Your task to perform on an android device: check the backup settings in the google photos Image 0: 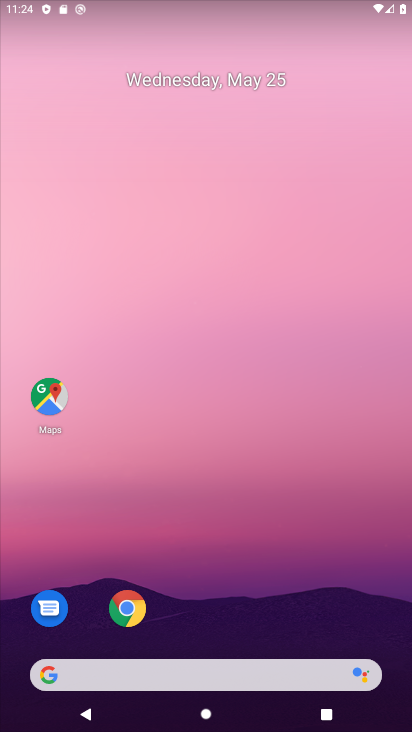
Step 0: drag from (231, 625) to (217, 114)
Your task to perform on an android device: check the backup settings in the google photos Image 1: 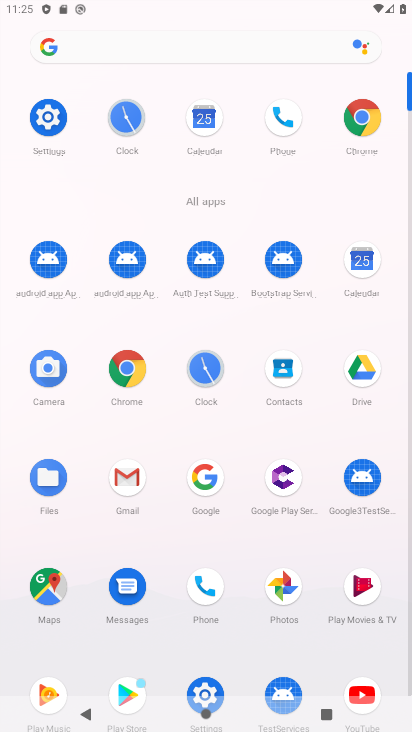
Step 1: click (290, 581)
Your task to perform on an android device: check the backup settings in the google photos Image 2: 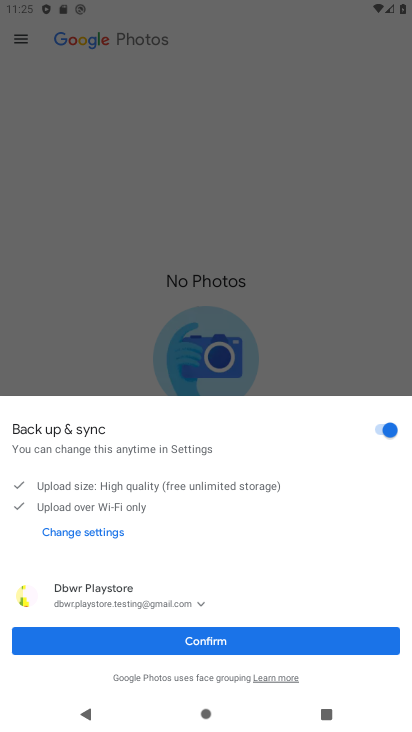
Step 2: click (106, 534)
Your task to perform on an android device: check the backup settings in the google photos Image 3: 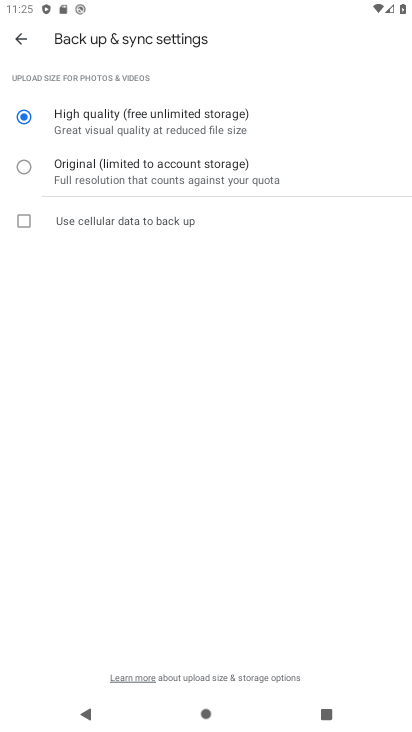
Step 3: click (190, 176)
Your task to perform on an android device: check the backup settings in the google photos Image 4: 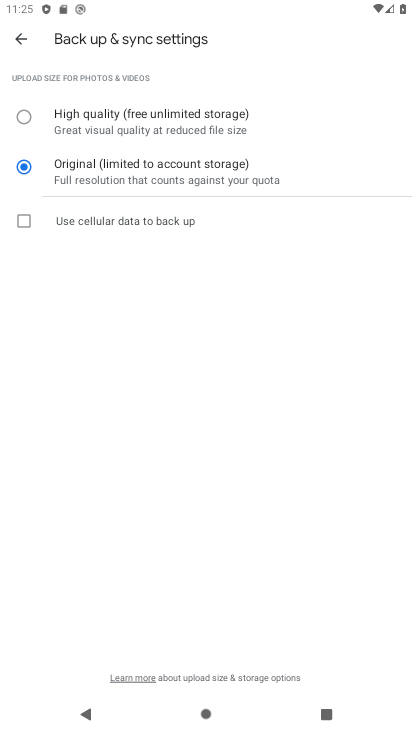
Step 4: task complete